Your task to perform on an android device: Is it going to rain tomorrow? Image 0: 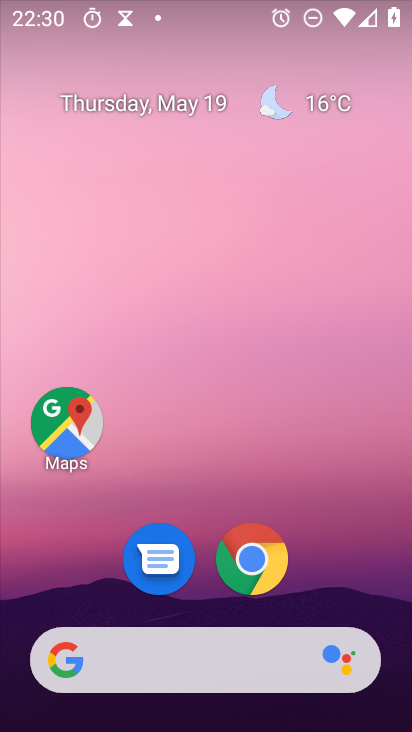
Step 0: click (271, 96)
Your task to perform on an android device: Is it going to rain tomorrow? Image 1: 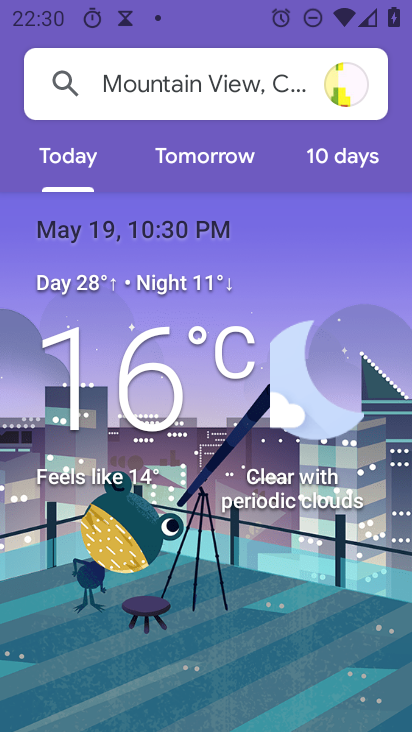
Step 1: click (220, 156)
Your task to perform on an android device: Is it going to rain tomorrow? Image 2: 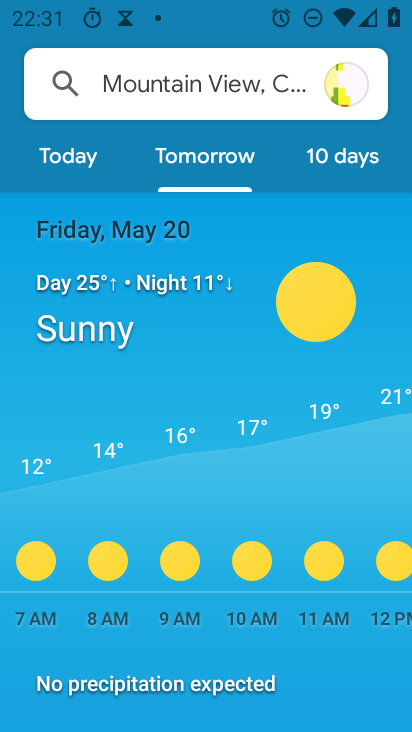
Step 2: task complete